Your task to perform on an android device: Check the news Image 0: 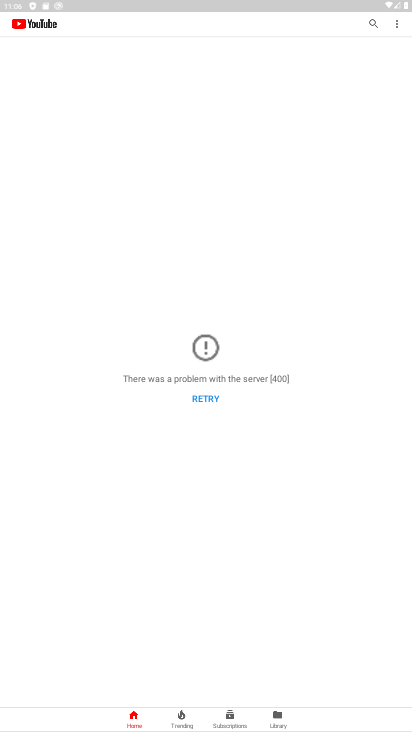
Step 0: press home button
Your task to perform on an android device: Check the news Image 1: 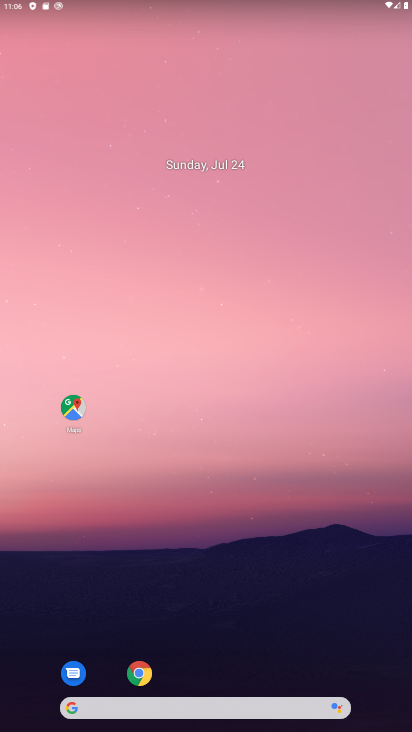
Step 1: drag from (331, 675) to (322, 112)
Your task to perform on an android device: Check the news Image 2: 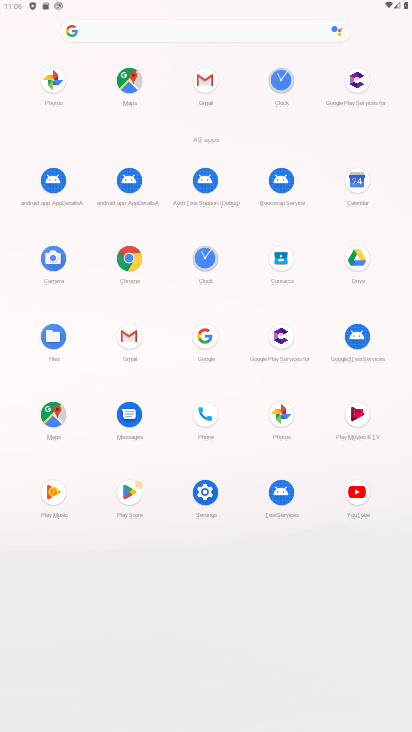
Step 2: click (128, 259)
Your task to perform on an android device: Check the news Image 3: 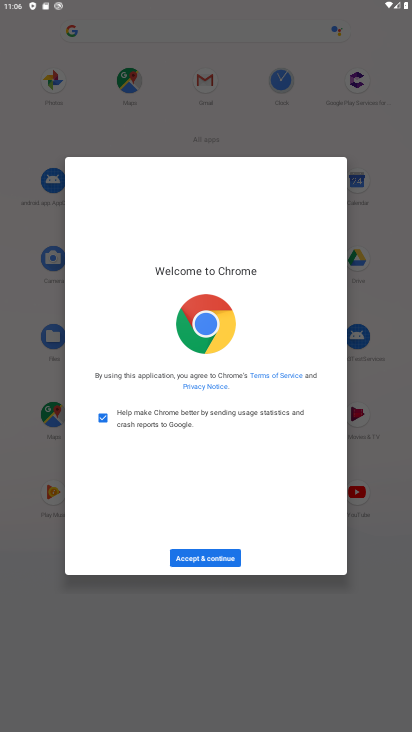
Step 3: click (222, 561)
Your task to perform on an android device: Check the news Image 4: 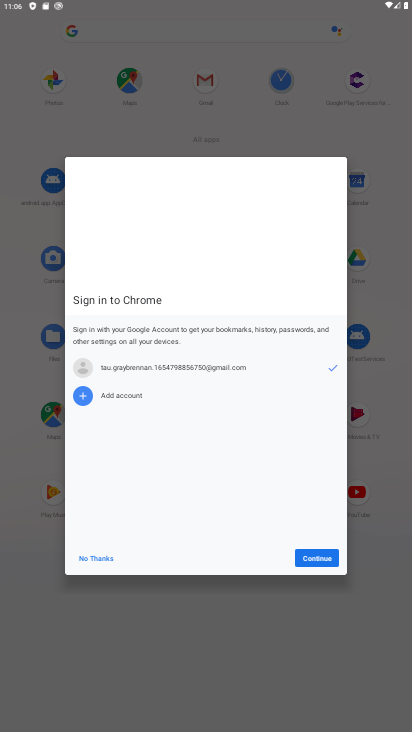
Step 4: click (322, 557)
Your task to perform on an android device: Check the news Image 5: 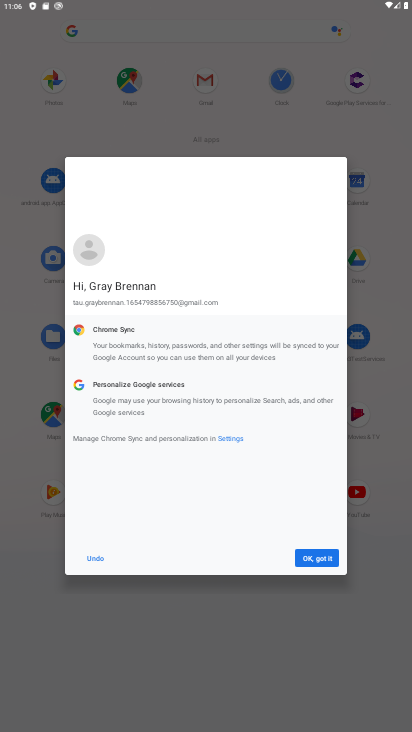
Step 5: click (318, 566)
Your task to perform on an android device: Check the news Image 6: 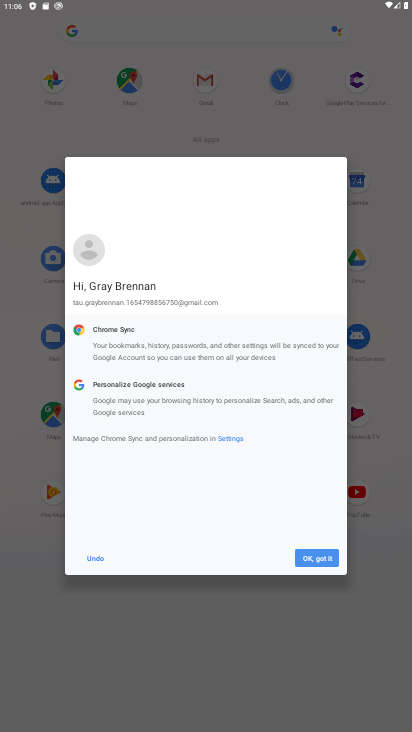
Step 6: click (317, 552)
Your task to perform on an android device: Check the news Image 7: 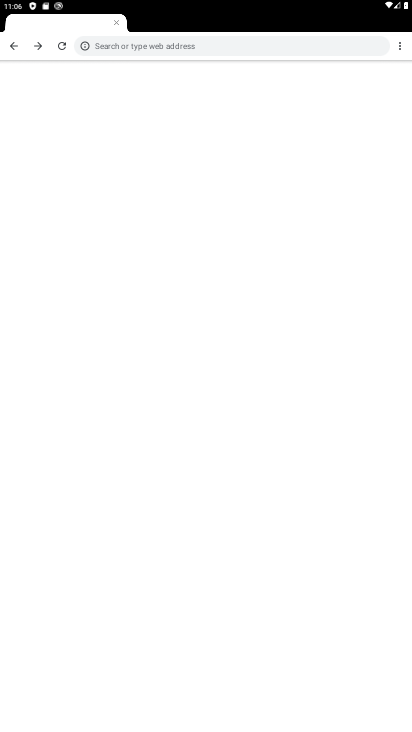
Step 7: click (241, 41)
Your task to perform on an android device: Check the news Image 8: 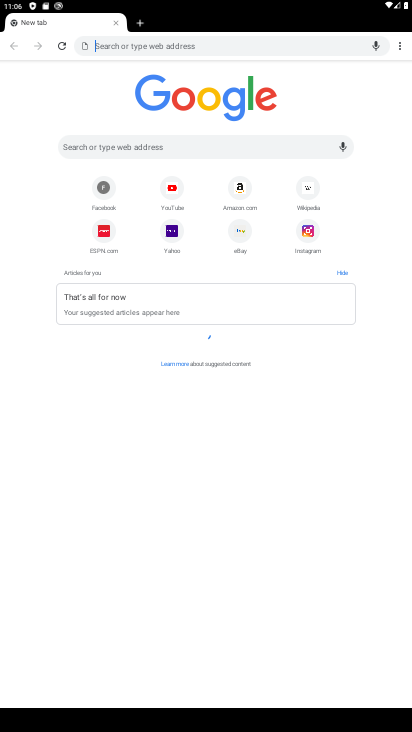
Step 8: type "news"
Your task to perform on an android device: Check the news Image 9: 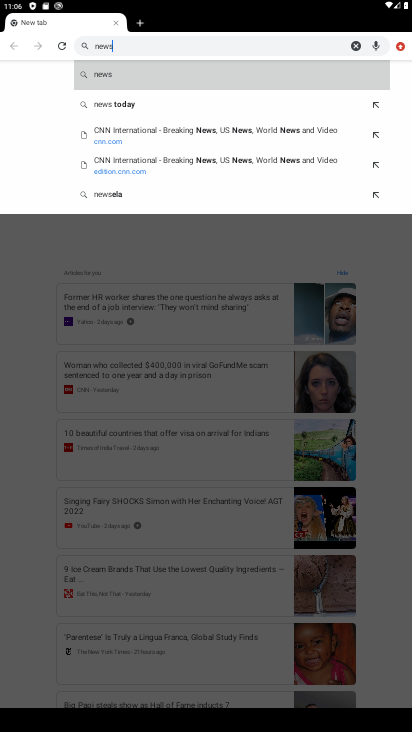
Step 9: click (108, 67)
Your task to perform on an android device: Check the news Image 10: 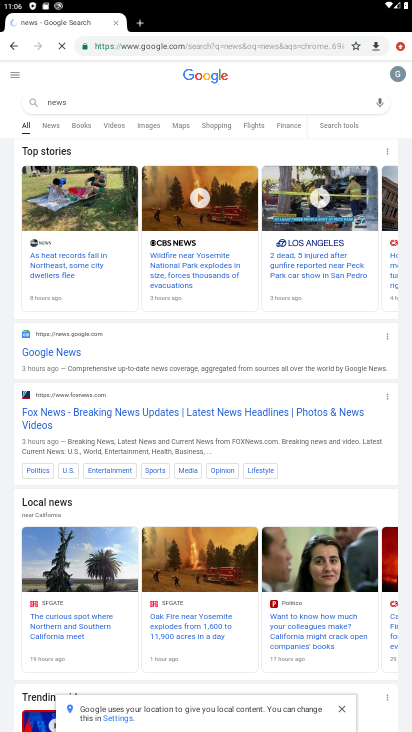
Step 10: click (73, 356)
Your task to perform on an android device: Check the news Image 11: 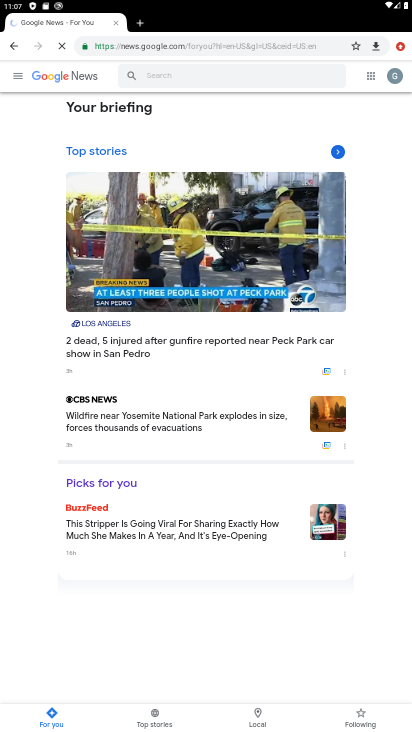
Step 11: task complete